Your task to perform on an android device: move an email to a new category in the gmail app Image 0: 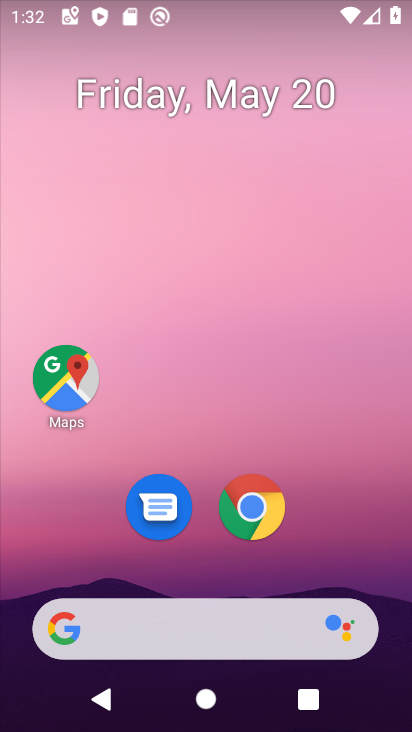
Step 0: drag from (231, 721) to (277, 213)
Your task to perform on an android device: move an email to a new category in the gmail app Image 1: 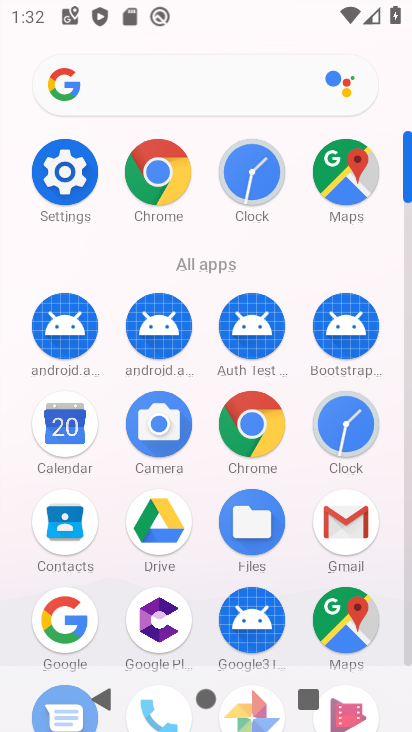
Step 1: click (343, 515)
Your task to perform on an android device: move an email to a new category in the gmail app Image 2: 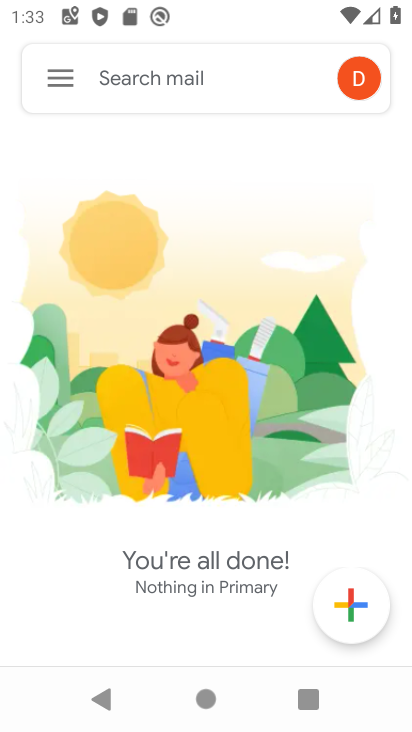
Step 2: task complete